Your task to perform on an android device: Open internet settings Image 0: 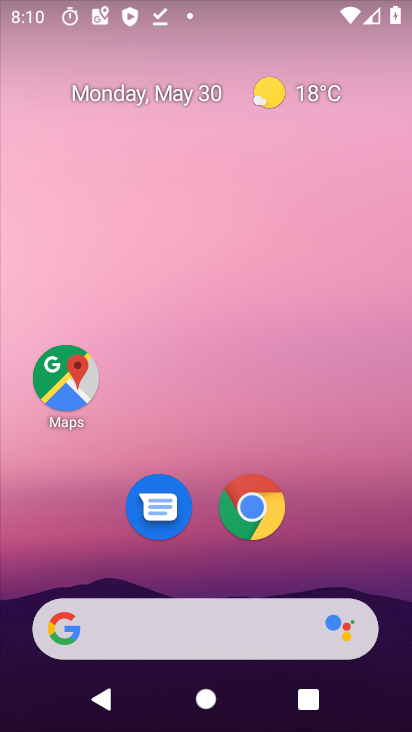
Step 0: drag from (378, 536) to (284, 176)
Your task to perform on an android device: Open internet settings Image 1: 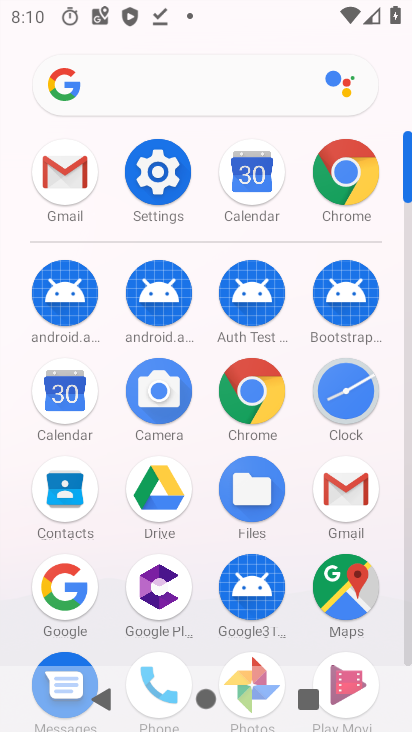
Step 1: click (149, 182)
Your task to perform on an android device: Open internet settings Image 2: 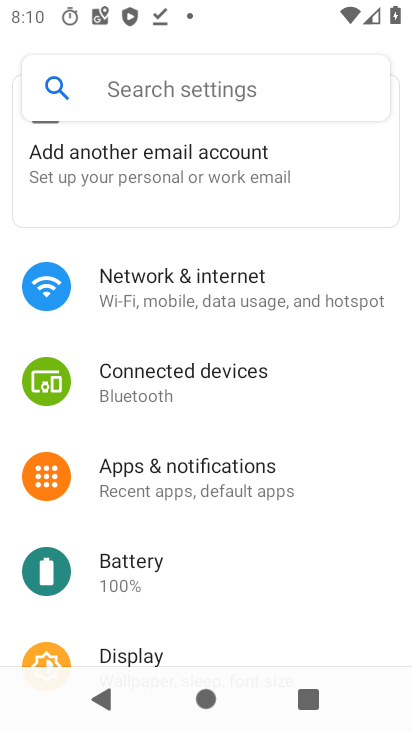
Step 2: click (177, 278)
Your task to perform on an android device: Open internet settings Image 3: 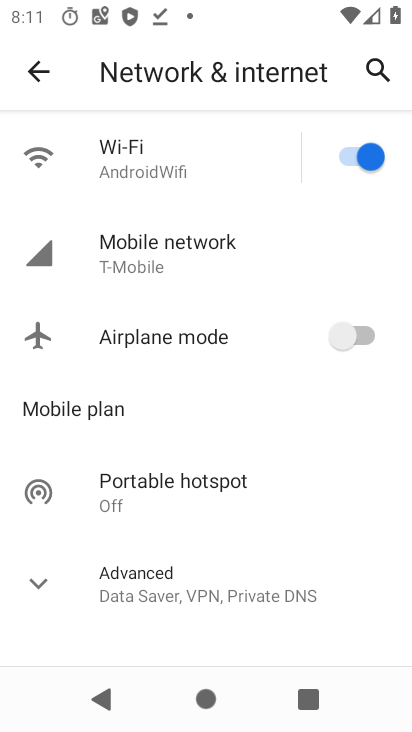
Step 3: click (182, 243)
Your task to perform on an android device: Open internet settings Image 4: 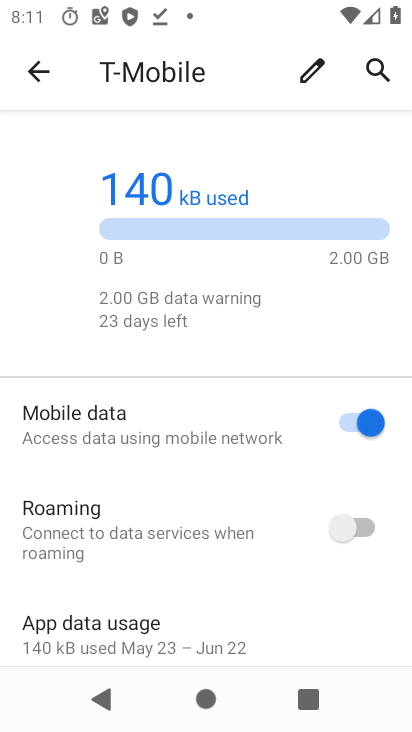
Step 4: task complete